Your task to perform on an android device: check google app version Image 0: 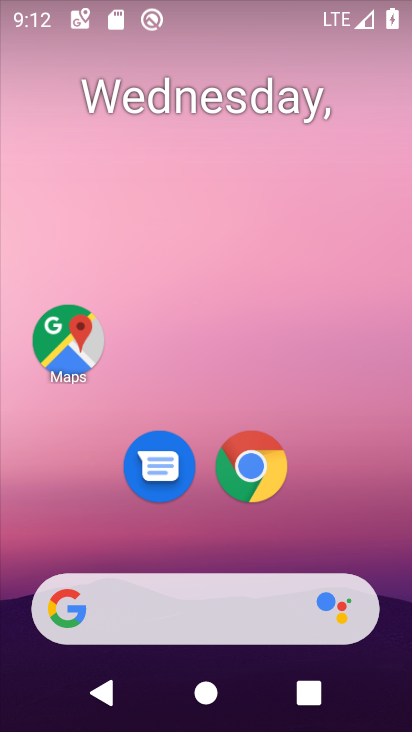
Step 0: drag from (219, 723) to (219, 178)
Your task to perform on an android device: check google app version Image 1: 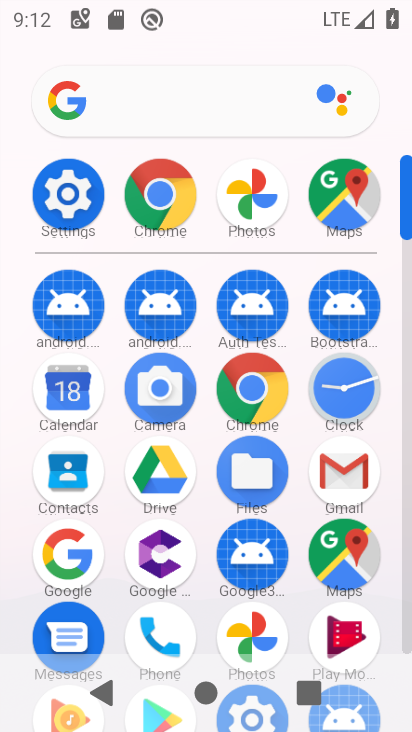
Step 1: click (57, 557)
Your task to perform on an android device: check google app version Image 2: 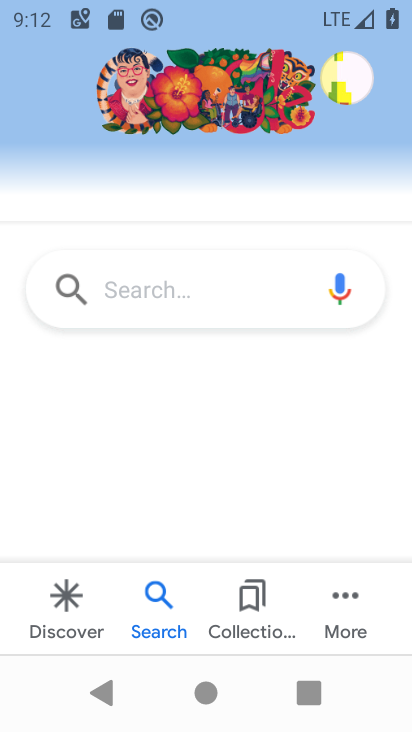
Step 2: click (351, 588)
Your task to perform on an android device: check google app version Image 3: 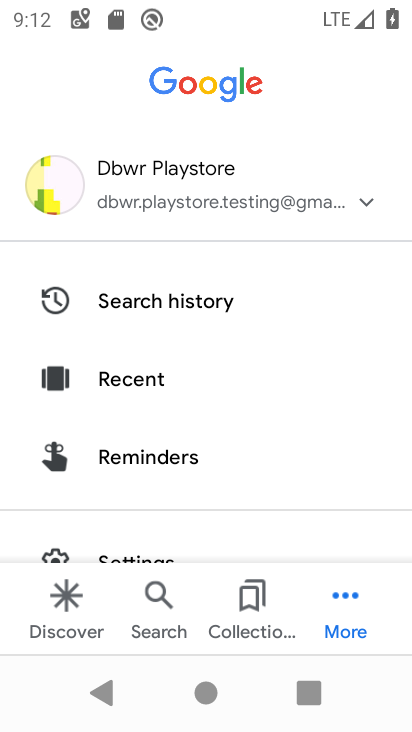
Step 3: drag from (155, 527) to (184, 217)
Your task to perform on an android device: check google app version Image 4: 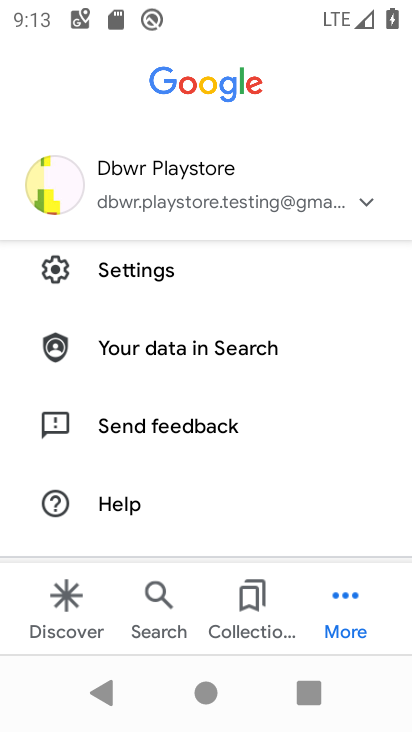
Step 4: click (124, 269)
Your task to perform on an android device: check google app version Image 5: 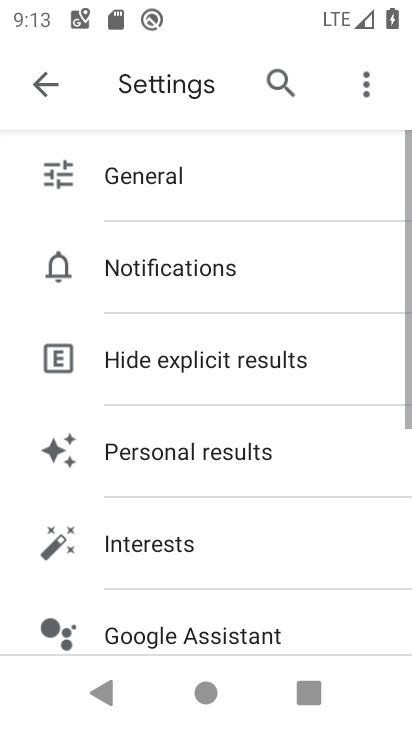
Step 5: drag from (156, 543) to (156, 247)
Your task to perform on an android device: check google app version Image 6: 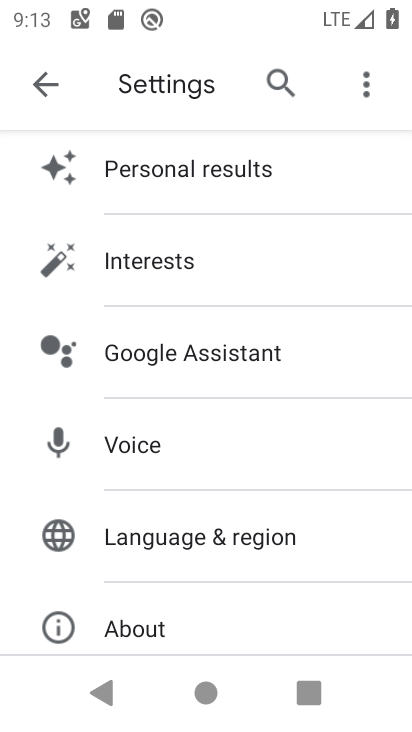
Step 6: drag from (147, 606) to (154, 293)
Your task to perform on an android device: check google app version Image 7: 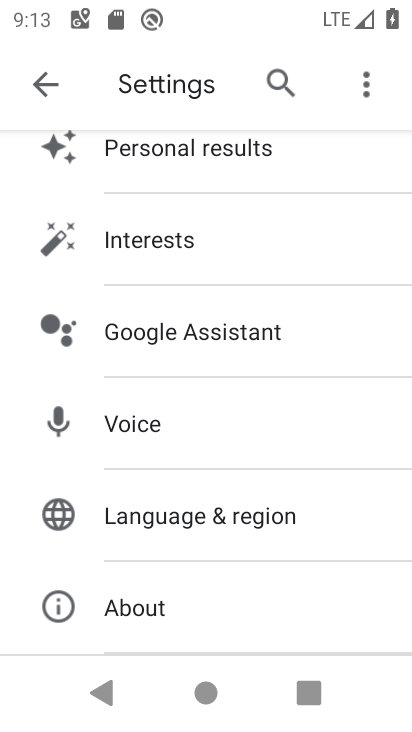
Step 7: click (159, 606)
Your task to perform on an android device: check google app version Image 8: 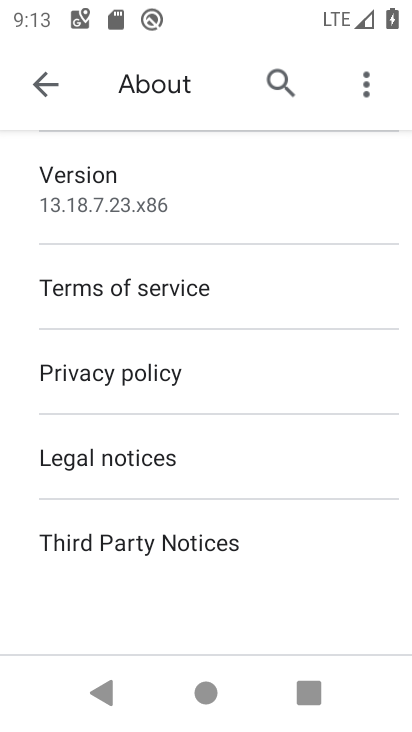
Step 8: task complete